Your task to perform on an android device: clear all cookies in the chrome app Image 0: 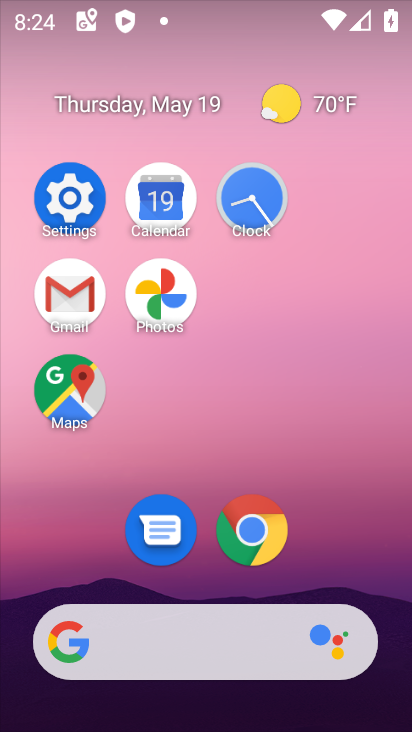
Step 0: click (250, 531)
Your task to perform on an android device: clear all cookies in the chrome app Image 1: 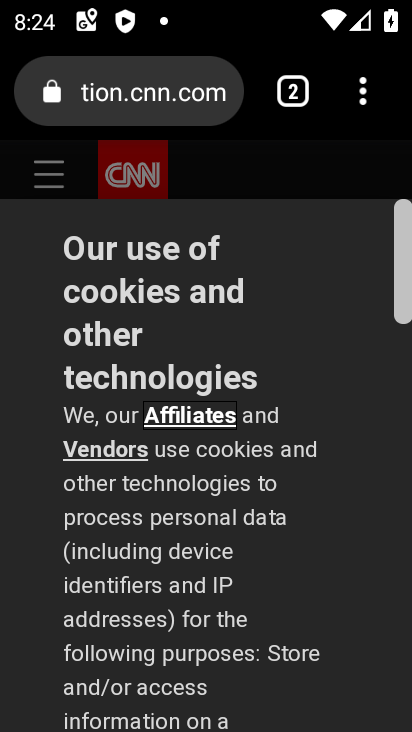
Step 1: click (372, 92)
Your task to perform on an android device: clear all cookies in the chrome app Image 2: 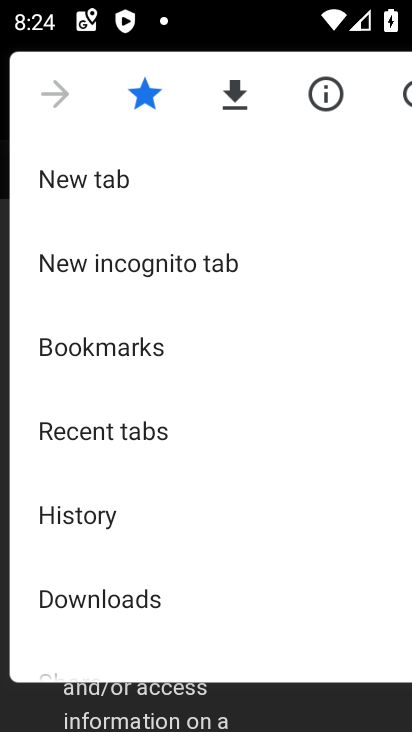
Step 2: drag from (294, 499) to (302, 58)
Your task to perform on an android device: clear all cookies in the chrome app Image 3: 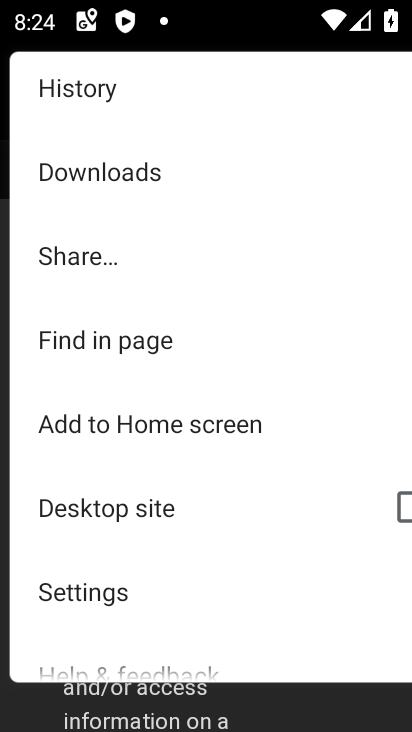
Step 3: click (123, 594)
Your task to perform on an android device: clear all cookies in the chrome app Image 4: 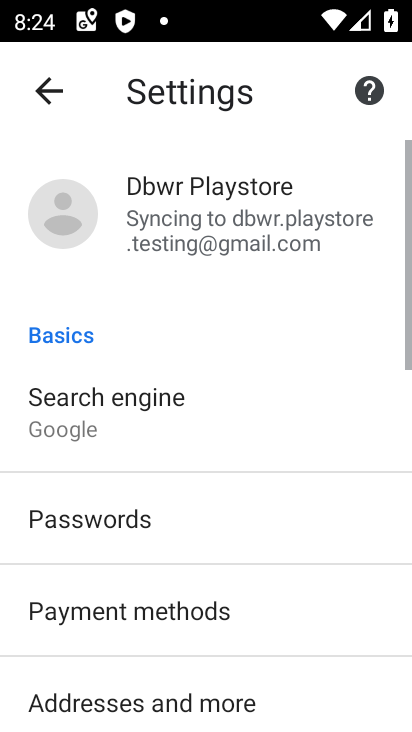
Step 4: drag from (123, 594) to (148, 162)
Your task to perform on an android device: clear all cookies in the chrome app Image 5: 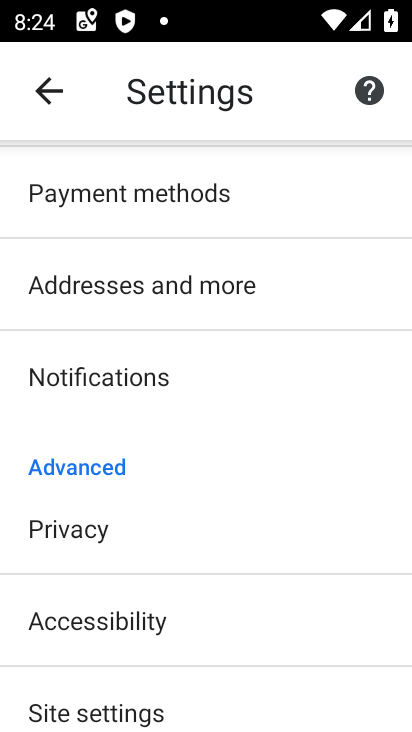
Step 5: click (136, 511)
Your task to perform on an android device: clear all cookies in the chrome app Image 6: 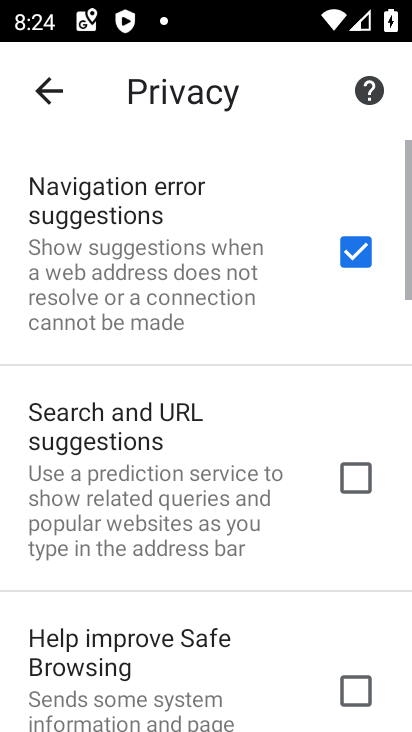
Step 6: drag from (136, 510) to (199, 97)
Your task to perform on an android device: clear all cookies in the chrome app Image 7: 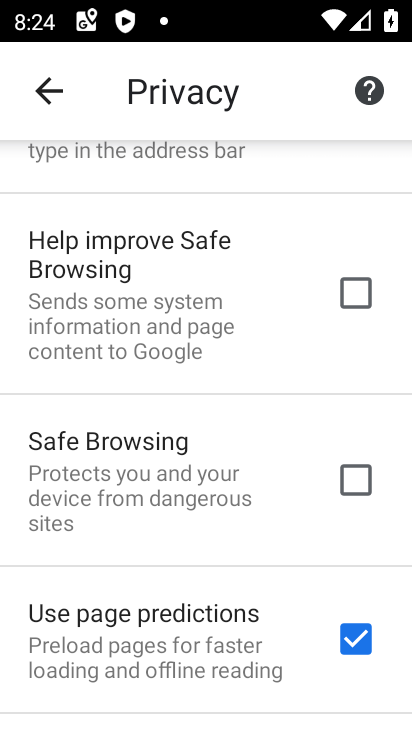
Step 7: drag from (183, 546) to (244, 149)
Your task to perform on an android device: clear all cookies in the chrome app Image 8: 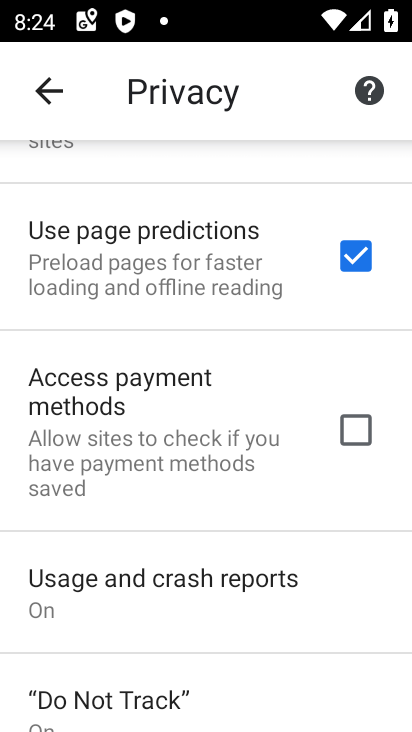
Step 8: drag from (209, 610) to (242, 209)
Your task to perform on an android device: clear all cookies in the chrome app Image 9: 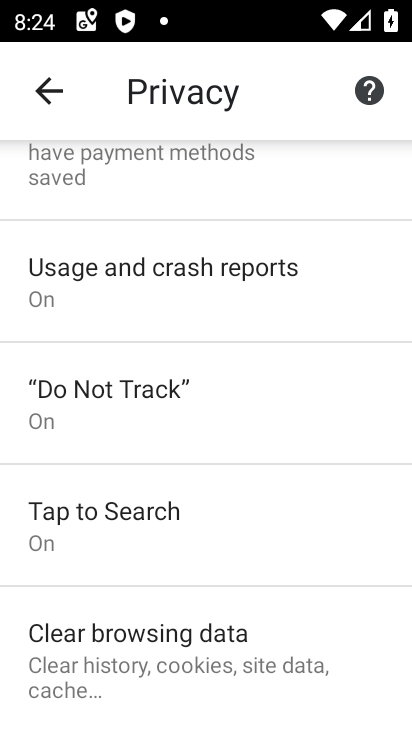
Step 9: click (257, 646)
Your task to perform on an android device: clear all cookies in the chrome app Image 10: 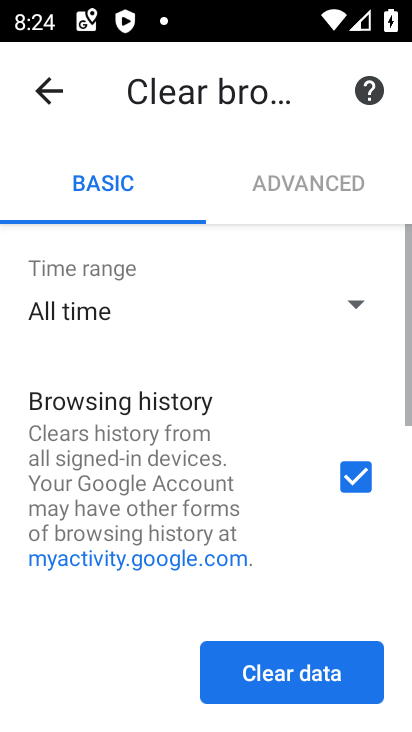
Step 10: drag from (306, 574) to (302, 225)
Your task to perform on an android device: clear all cookies in the chrome app Image 11: 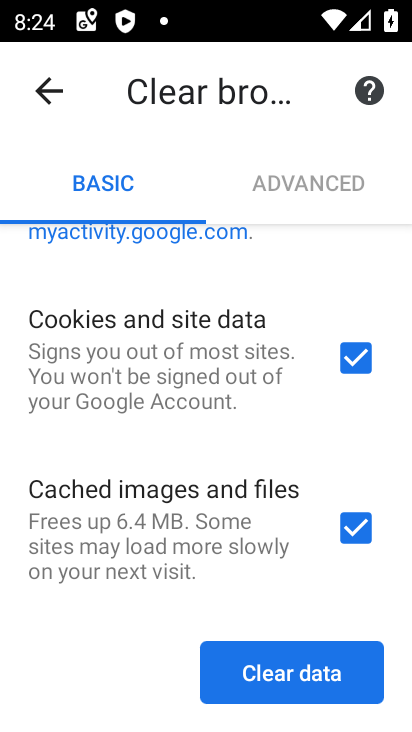
Step 11: click (282, 680)
Your task to perform on an android device: clear all cookies in the chrome app Image 12: 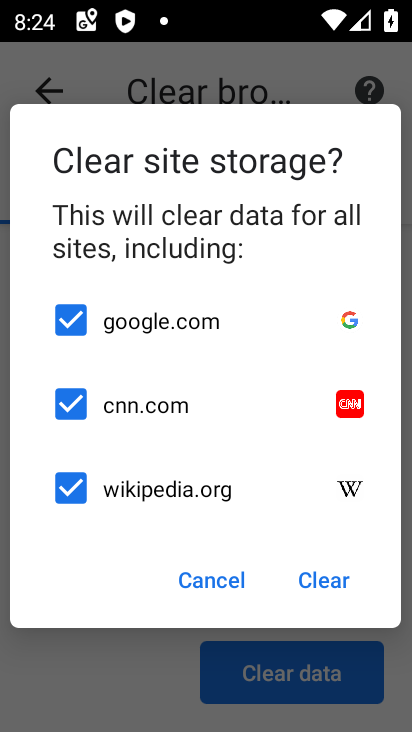
Step 12: click (347, 582)
Your task to perform on an android device: clear all cookies in the chrome app Image 13: 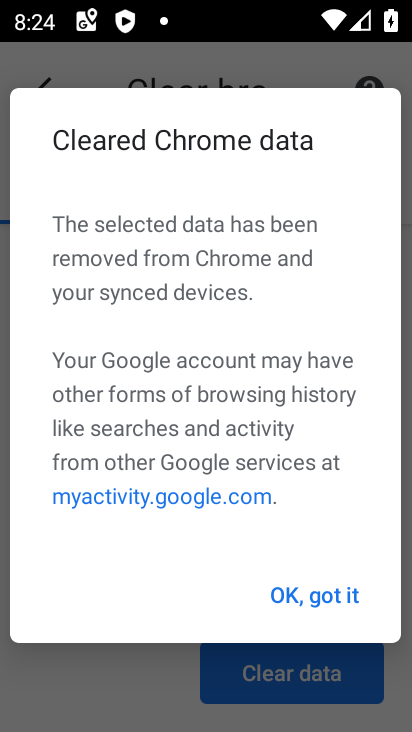
Step 13: task complete